Your task to perform on an android device: Open calendar and show me the second week of next month Image 0: 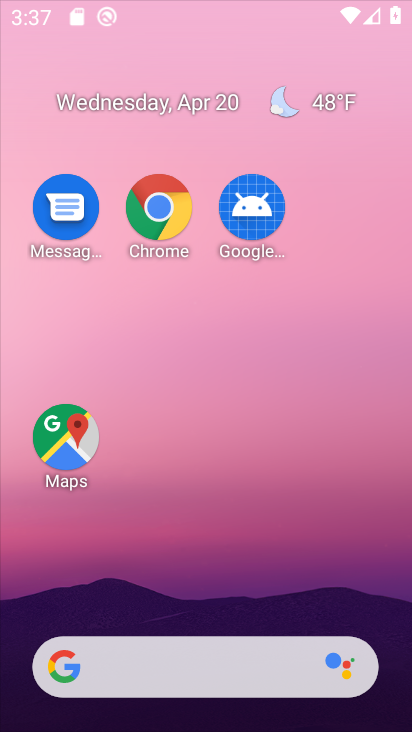
Step 0: drag from (238, 503) to (272, 228)
Your task to perform on an android device: Open calendar and show me the second week of next month Image 1: 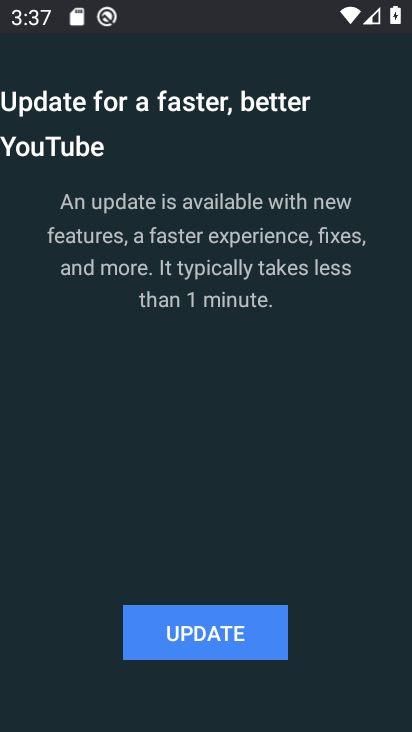
Step 1: press home button
Your task to perform on an android device: Open calendar and show me the second week of next month Image 2: 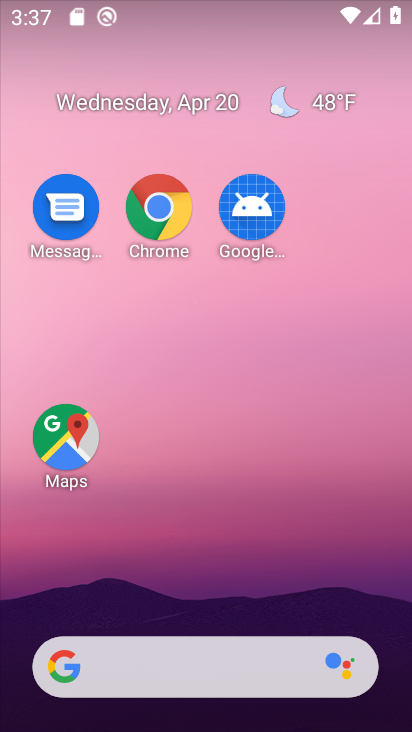
Step 2: drag from (198, 529) to (224, 177)
Your task to perform on an android device: Open calendar and show me the second week of next month Image 3: 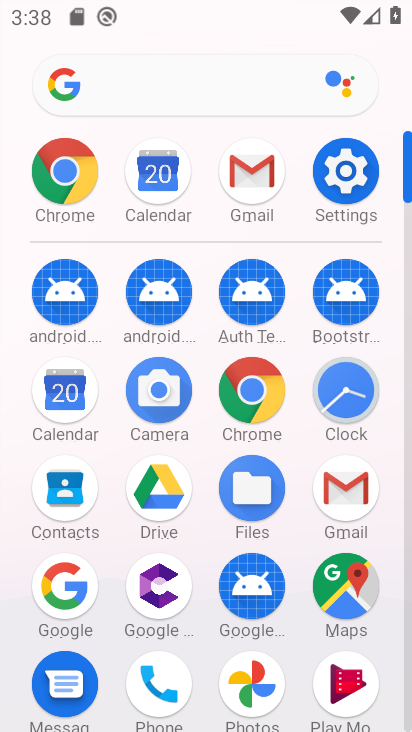
Step 3: click (78, 396)
Your task to perform on an android device: Open calendar and show me the second week of next month Image 4: 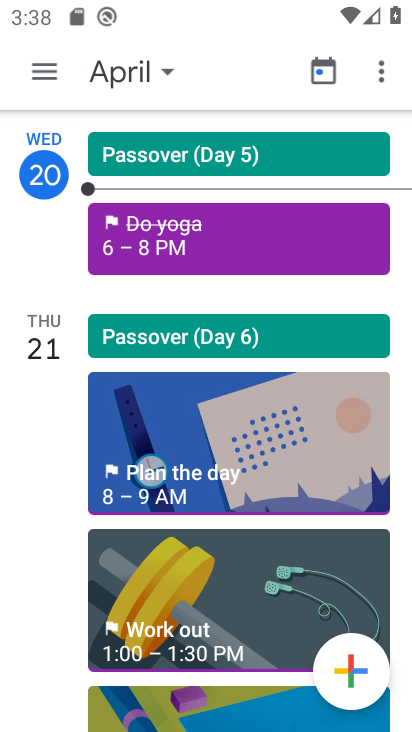
Step 4: click (155, 84)
Your task to perform on an android device: Open calendar and show me the second week of next month Image 5: 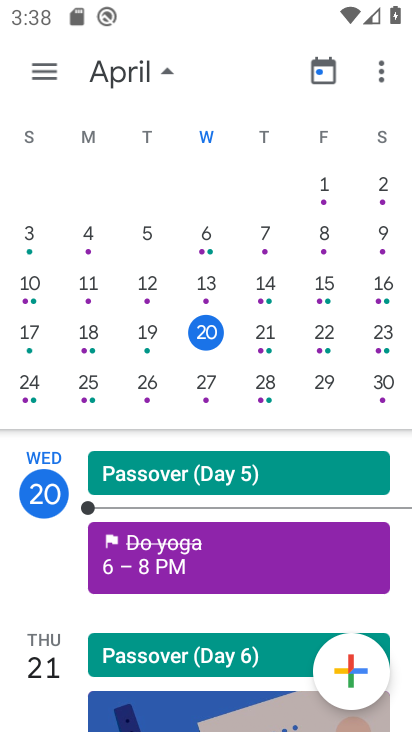
Step 5: drag from (370, 369) to (140, 346)
Your task to perform on an android device: Open calendar and show me the second week of next month Image 6: 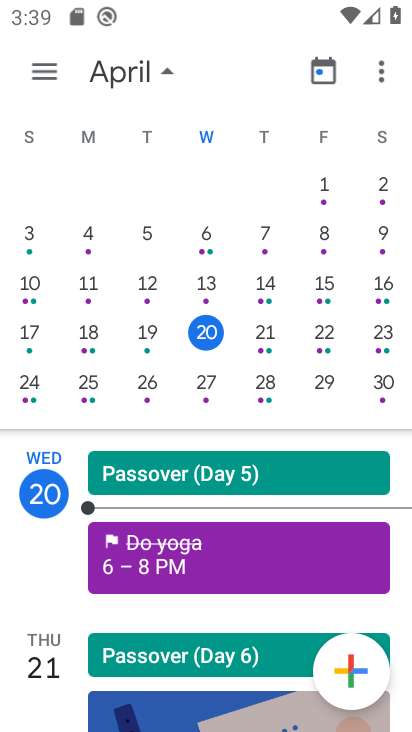
Step 6: drag from (367, 320) to (41, 270)
Your task to perform on an android device: Open calendar and show me the second week of next month Image 7: 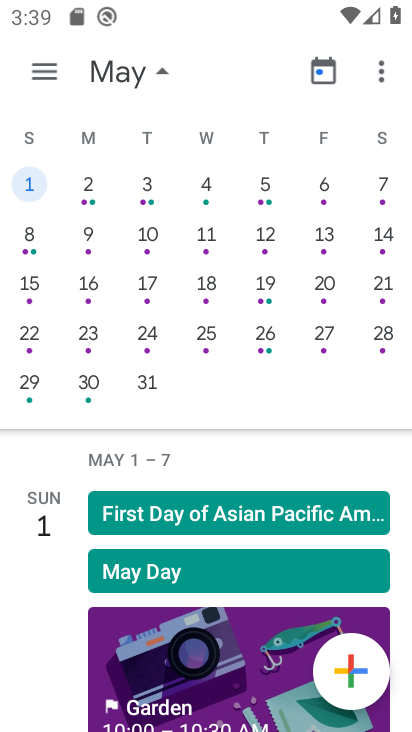
Step 7: click (32, 242)
Your task to perform on an android device: Open calendar and show me the second week of next month Image 8: 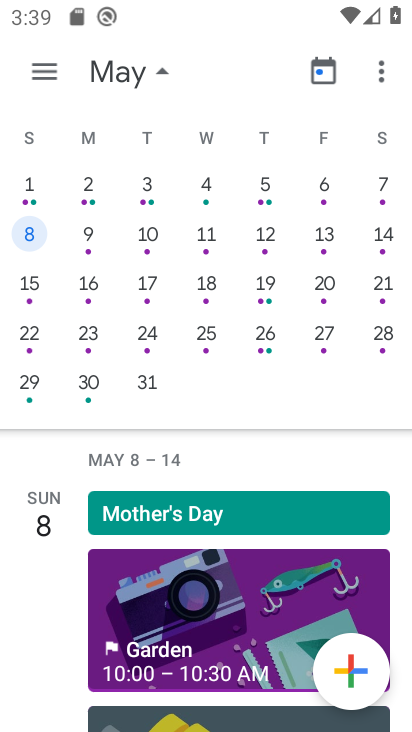
Step 8: task complete